Your task to perform on an android device: allow notifications from all sites in the chrome app Image 0: 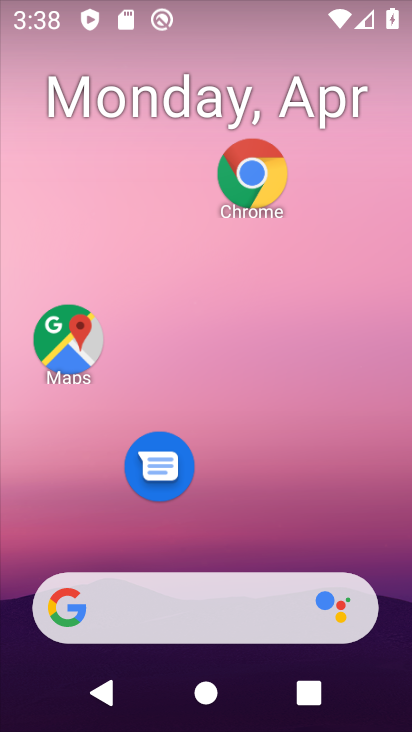
Step 0: drag from (318, 539) to (296, 81)
Your task to perform on an android device: allow notifications from all sites in the chrome app Image 1: 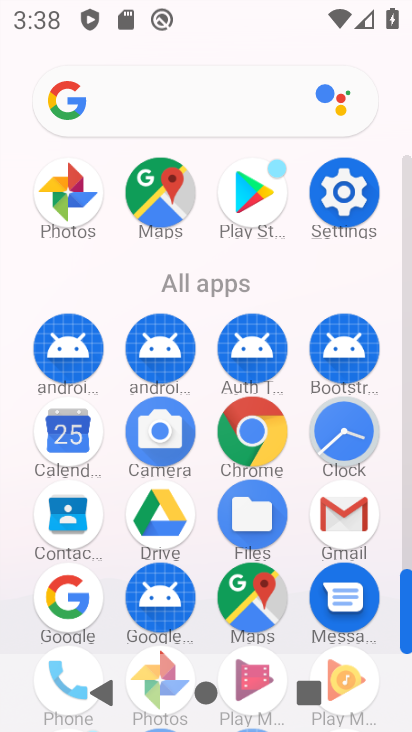
Step 1: click (347, 519)
Your task to perform on an android device: allow notifications from all sites in the chrome app Image 2: 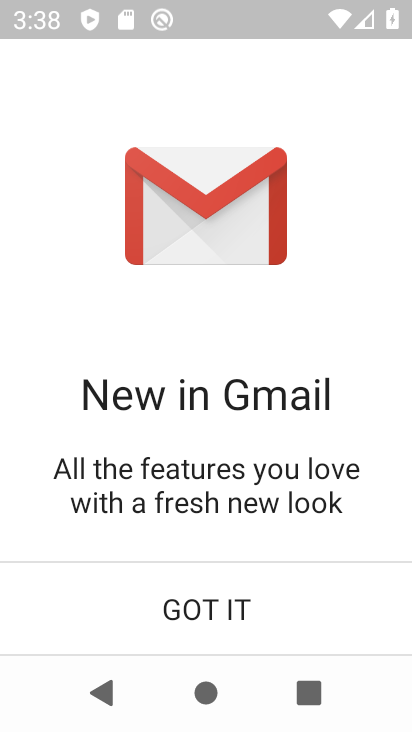
Step 2: press home button
Your task to perform on an android device: allow notifications from all sites in the chrome app Image 3: 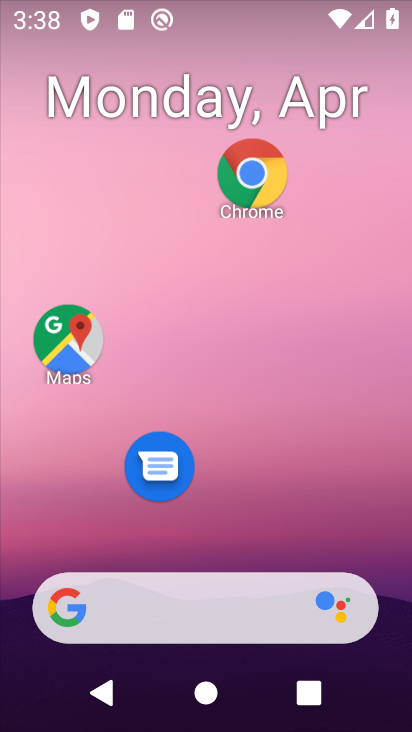
Step 3: click (250, 184)
Your task to perform on an android device: allow notifications from all sites in the chrome app Image 4: 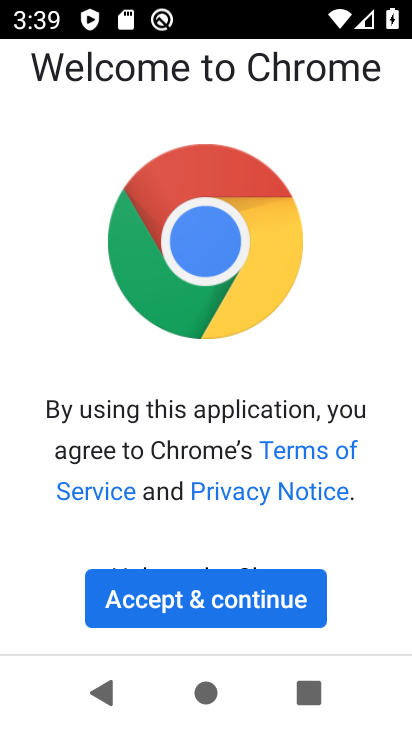
Step 4: click (251, 589)
Your task to perform on an android device: allow notifications from all sites in the chrome app Image 5: 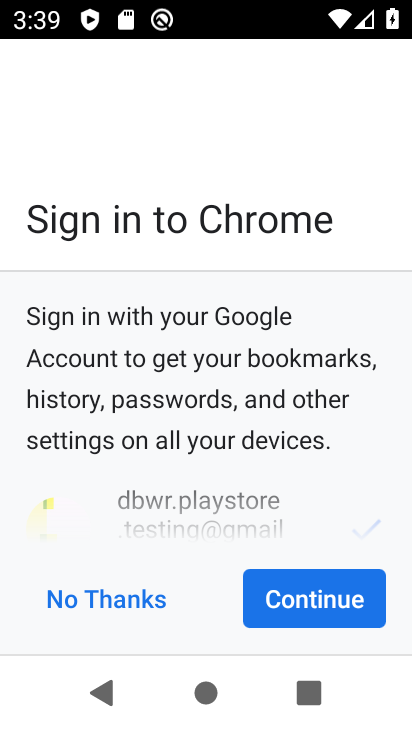
Step 5: click (318, 599)
Your task to perform on an android device: allow notifications from all sites in the chrome app Image 6: 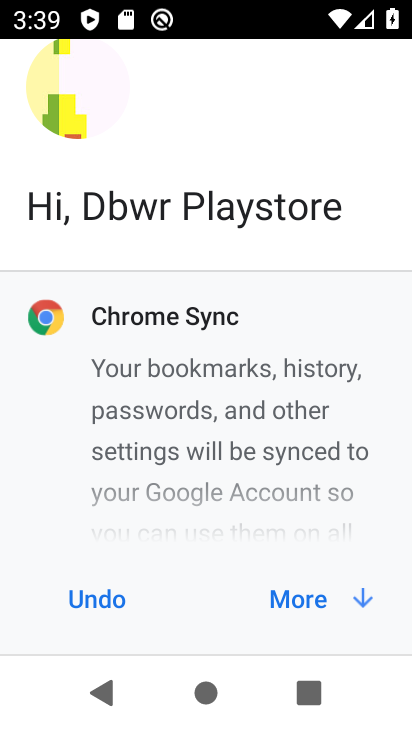
Step 6: click (318, 599)
Your task to perform on an android device: allow notifications from all sites in the chrome app Image 7: 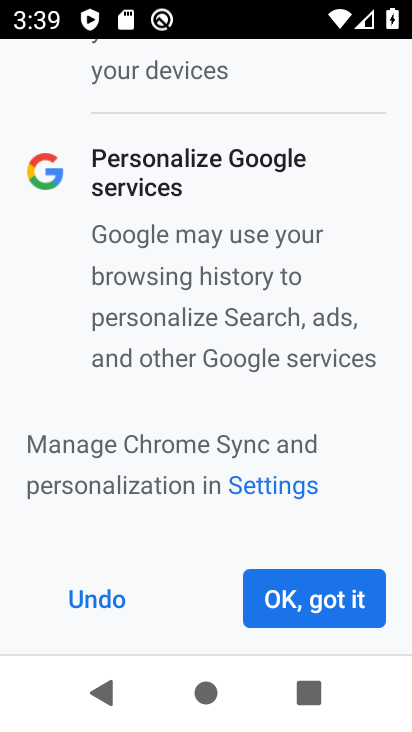
Step 7: click (318, 599)
Your task to perform on an android device: allow notifications from all sites in the chrome app Image 8: 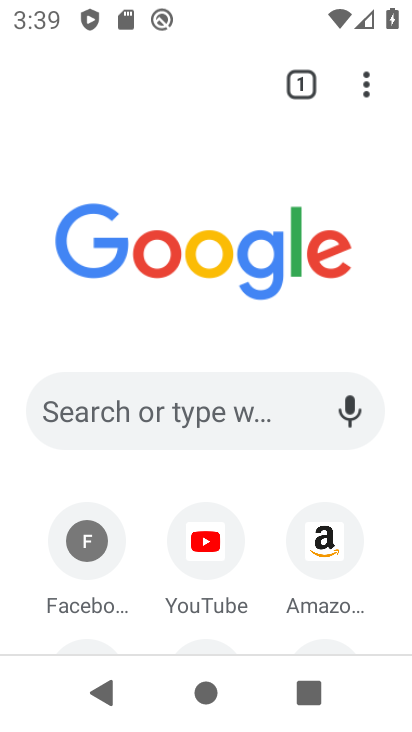
Step 8: click (366, 110)
Your task to perform on an android device: allow notifications from all sites in the chrome app Image 9: 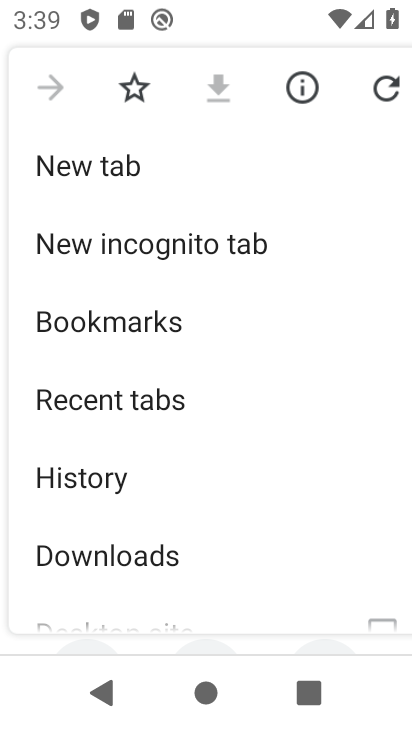
Step 9: drag from (250, 609) to (260, 278)
Your task to perform on an android device: allow notifications from all sites in the chrome app Image 10: 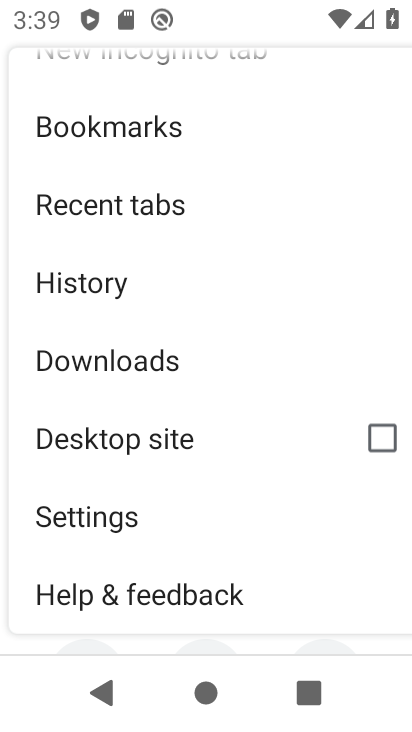
Step 10: click (224, 542)
Your task to perform on an android device: allow notifications from all sites in the chrome app Image 11: 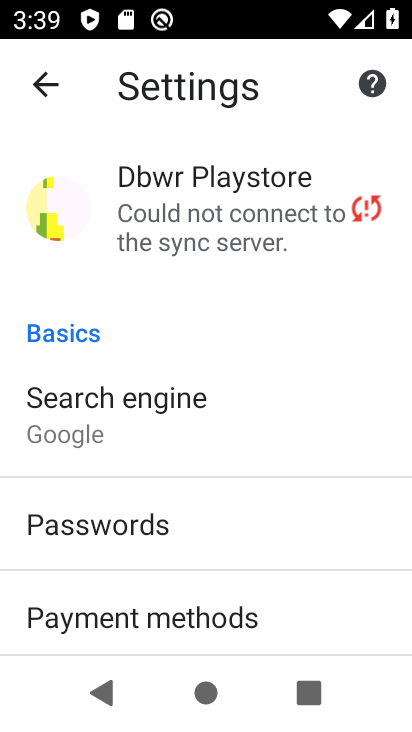
Step 11: drag from (273, 589) to (238, 201)
Your task to perform on an android device: allow notifications from all sites in the chrome app Image 12: 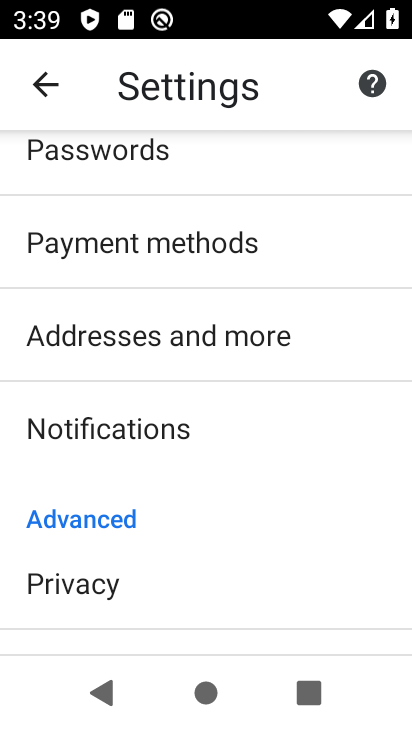
Step 12: drag from (252, 579) to (247, 311)
Your task to perform on an android device: allow notifications from all sites in the chrome app Image 13: 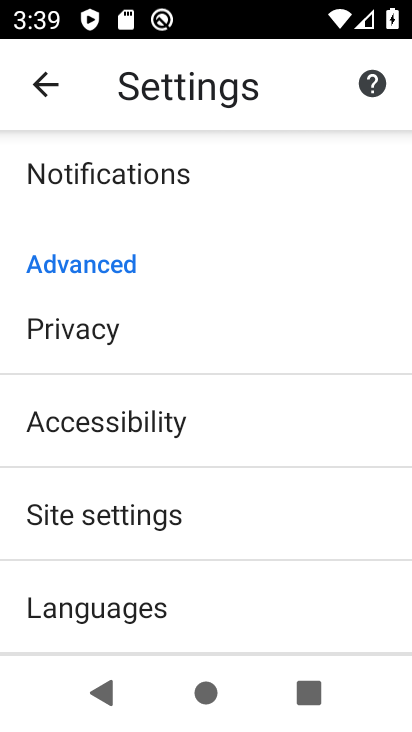
Step 13: click (233, 532)
Your task to perform on an android device: allow notifications from all sites in the chrome app Image 14: 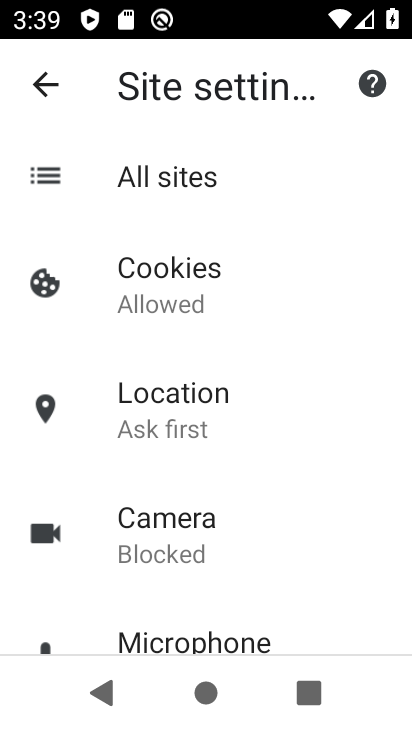
Step 14: drag from (270, 607) to (266, 182)
Your task to perform on an android device: allow notifications from all sites in the chrome app Image 15: 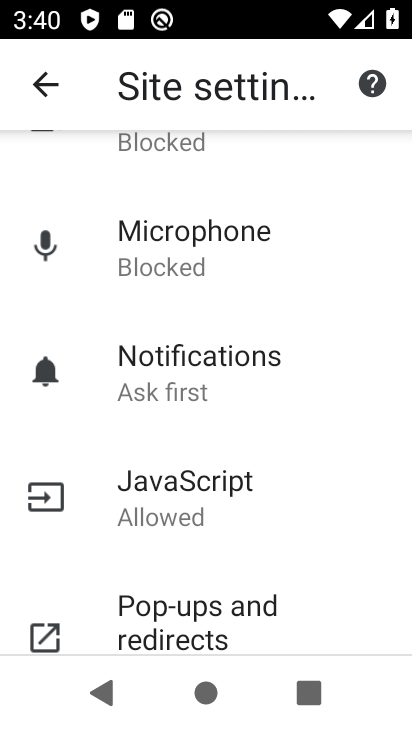
Step 15: click (279, 374)
Your task to perform on an android device: allow notifications from all sites in the chrome app Image 16: 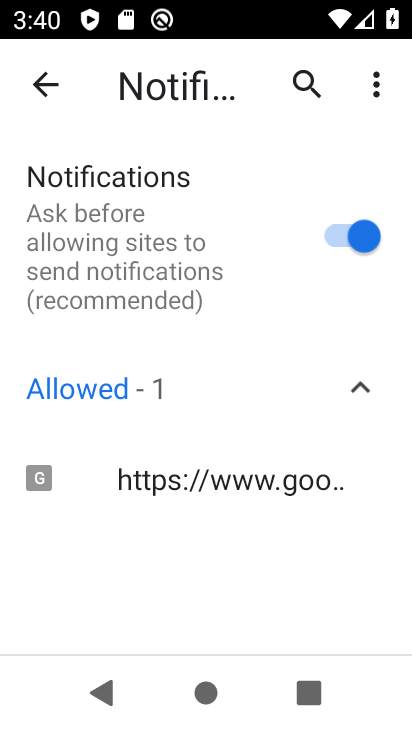
Step 16: task complete